Your task to perform on an android device: refresh tabs in the chrome app Image 0: 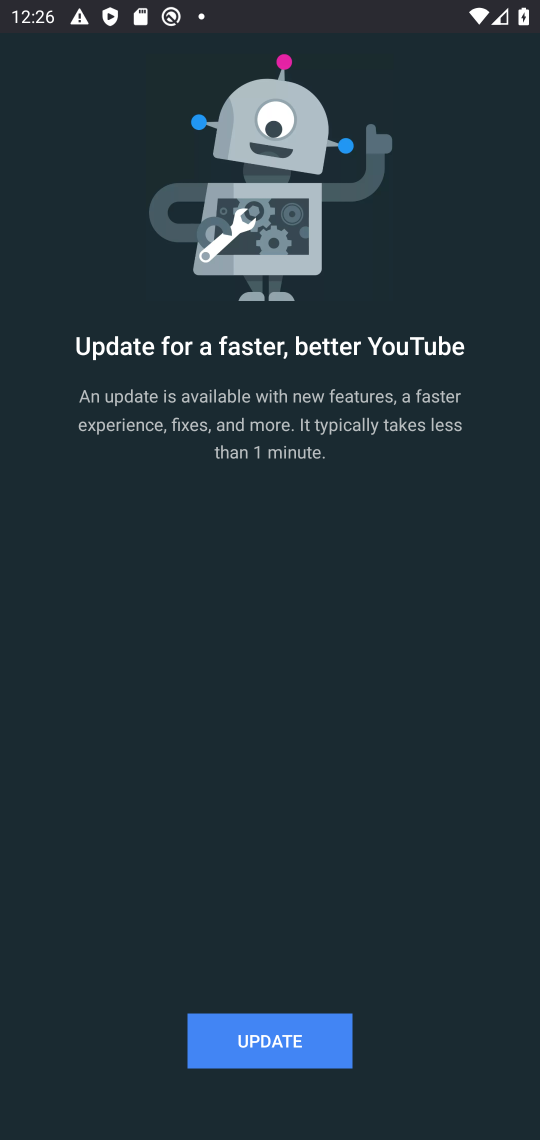
Step 0: press back button
Your task to perform on an android device: refresh tabs in the chrome app Image 1: 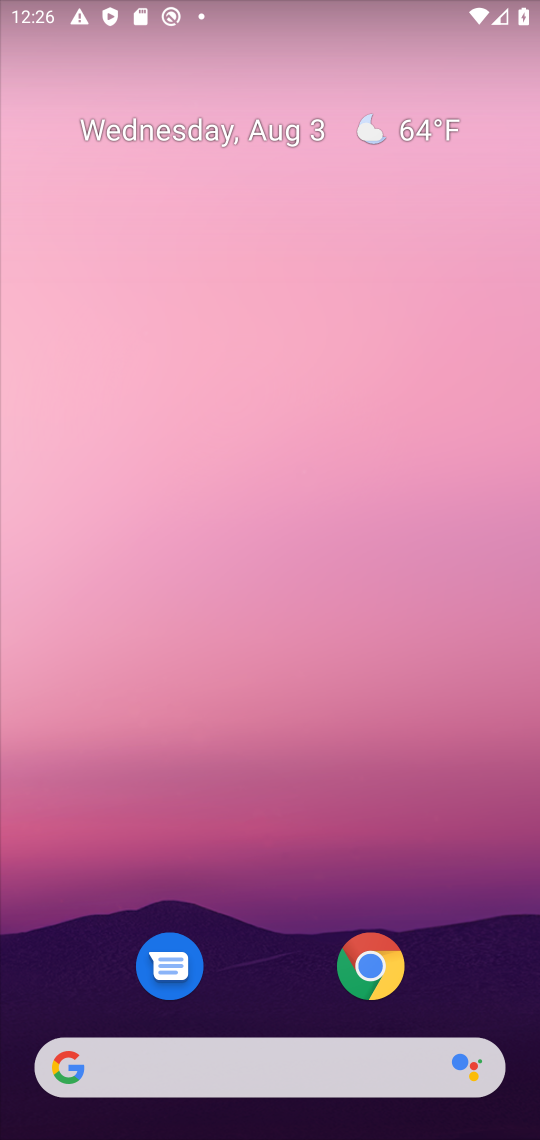
Step 1: click (349, 959)
Your task to perform on an android device: refresh tabs in the chrome app Image 2: 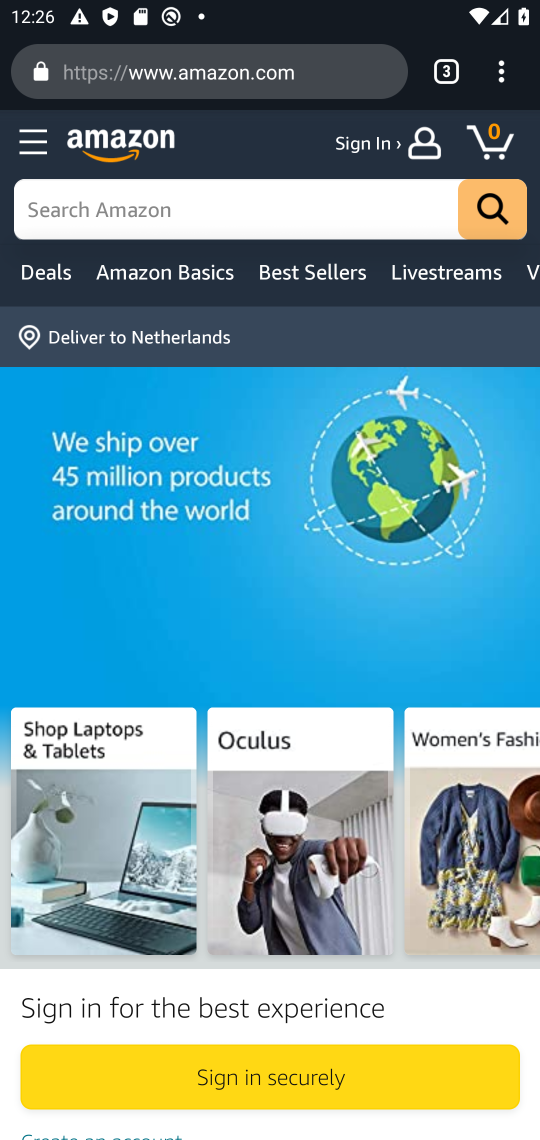
Step 2: click (514, 90)
Your task to perform on an android device: refresh tabs in the chrome app Image 3: 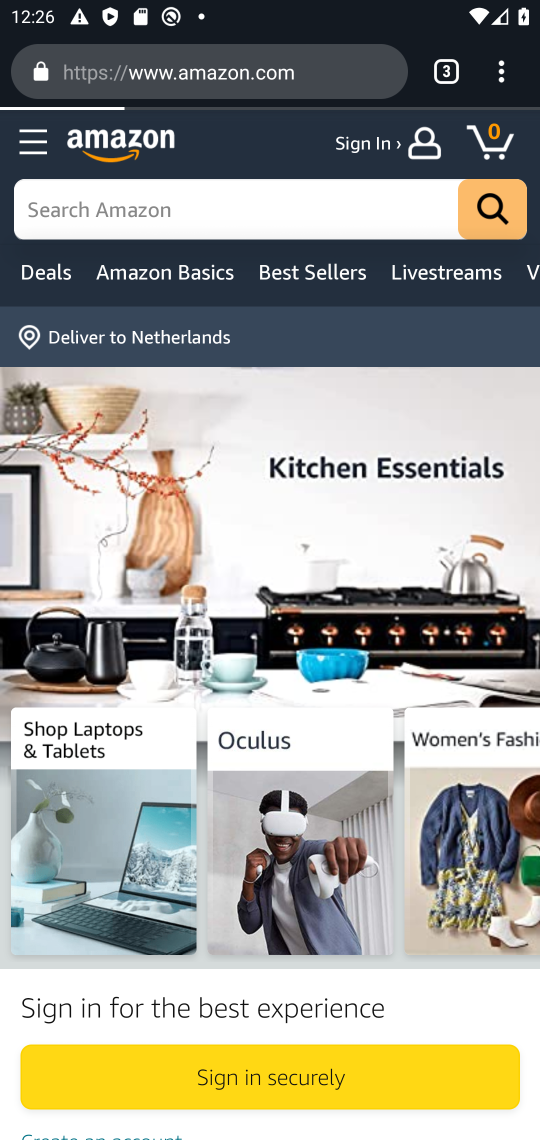
Step 3: click (511, 90)
Your task to perform on an android device: refresh tabs in the chrome app Image 4: 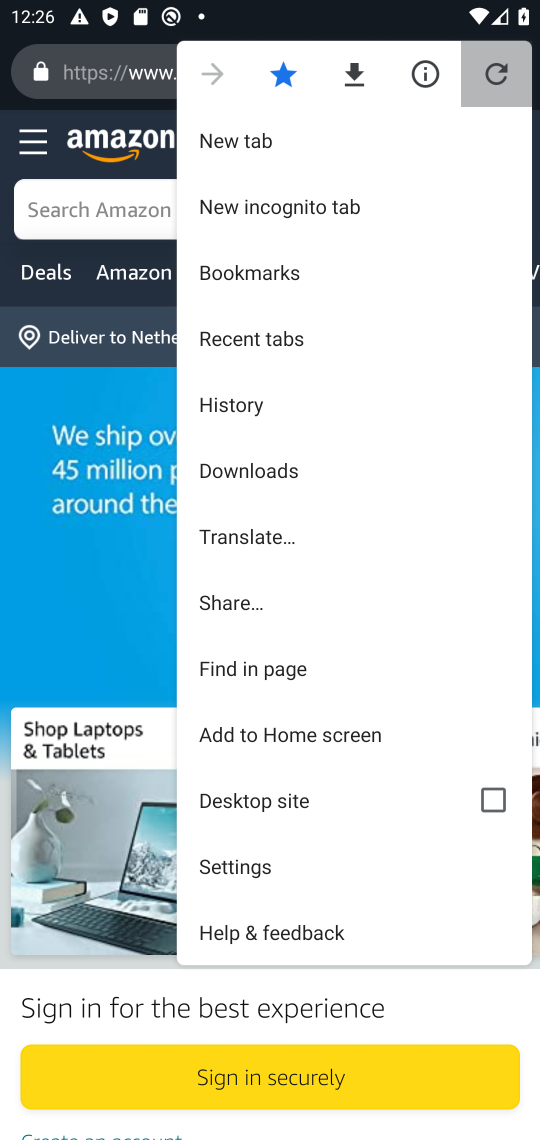
Step 4: click (481, 73)
Your task to perform on an android device: refresh tabs in the chrome app Image 5: 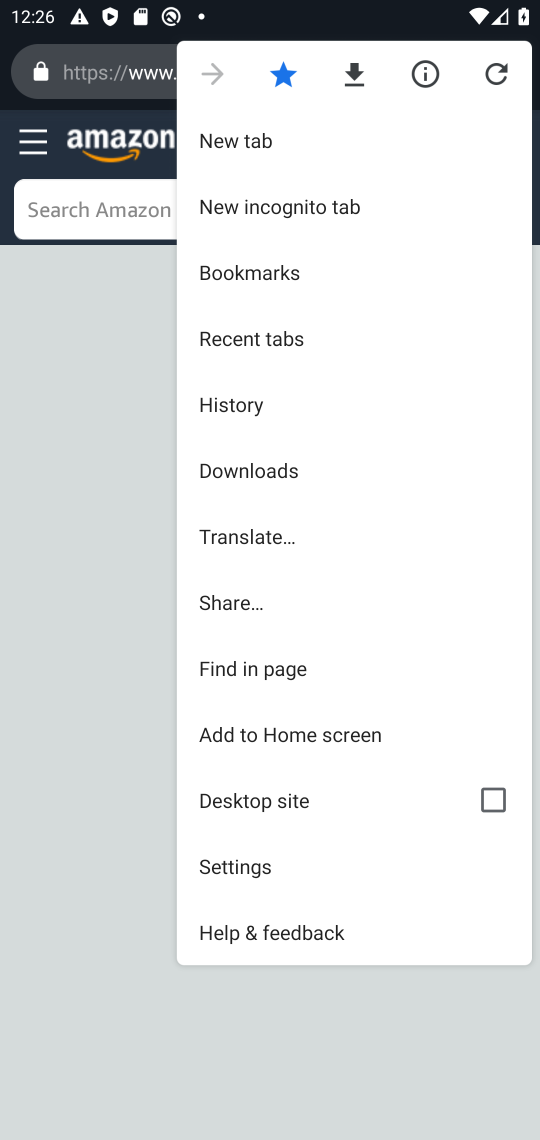
Step 5: task complete